Your task to perform on an android device: Search for Italian restaurants on Maps Image 0: 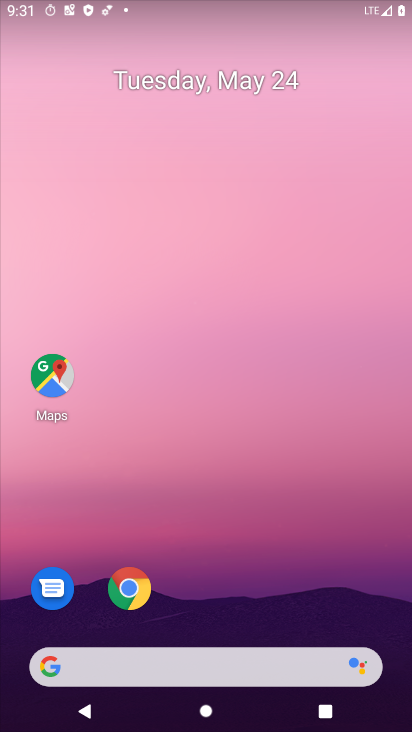
Step 0: drag from (276, 618) to (303, 82)
Your task to perform on an android device: Search for Italian restaurants on Maps Image 1: 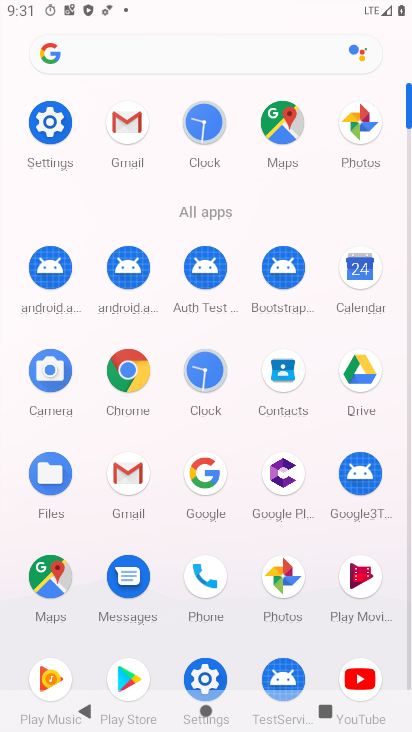
Step 1: click (295, 128)
Your task to perform on an android device: Search for Italian restaurants on Maps Image 2: 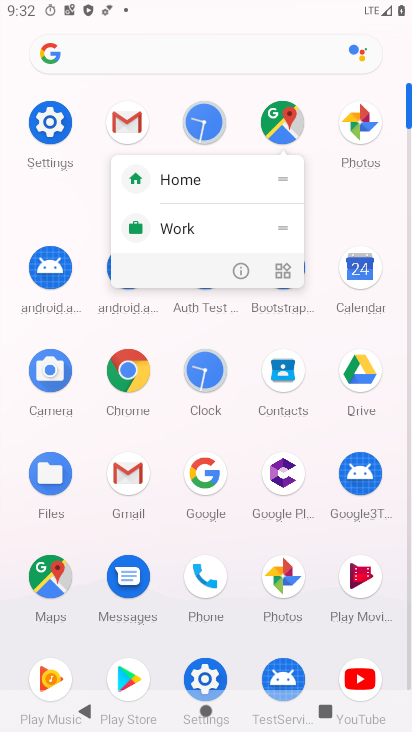
Step 2: click (284, 124)
Your task to perform on an android device: Search for Italian restaurants on Maps Image 3: 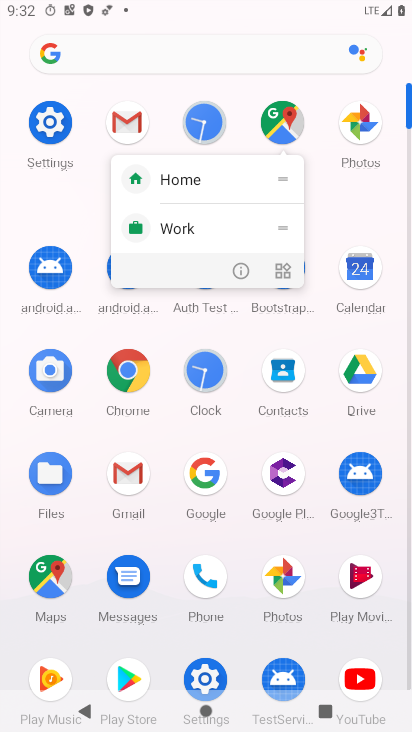
Step 3: click (280, 124)
Your task to perform on an android device: Search for Italian restaurants on Maps Image 4: 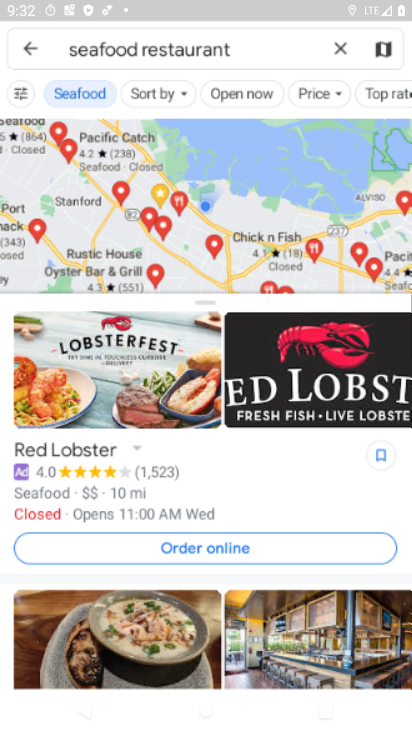
Step 4: click (352, 32)
Your task to perform on an android device: Search for Italian restaurants on Maps Image 5: 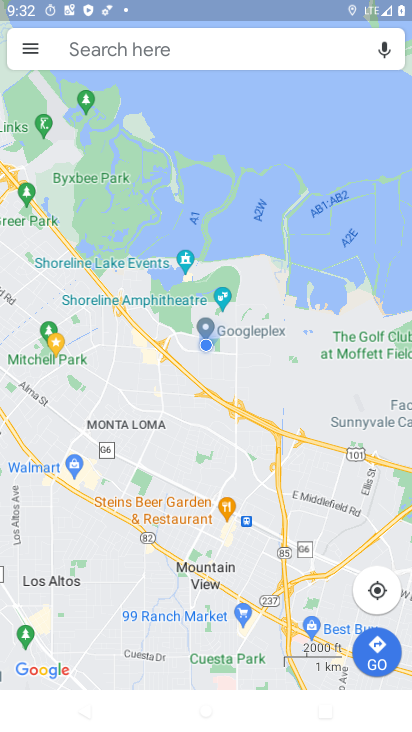
Step 5: click (154, 55)
Your task to perform on an android device: Search for Italian restaurants on Maps Image 6: 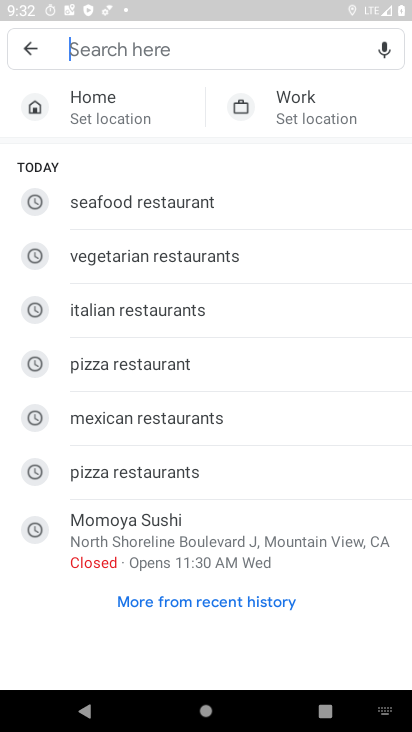
Step 6: click (138, 312)
Your task to perform on an android device: Search for Italian restaurants on Maps Image 7: 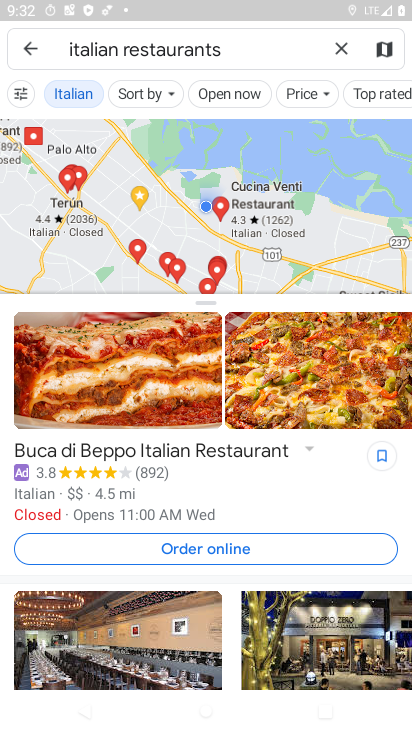
Step 7: task complete